Your task to perform on an android device: turn off picture-in-picture Image 0: 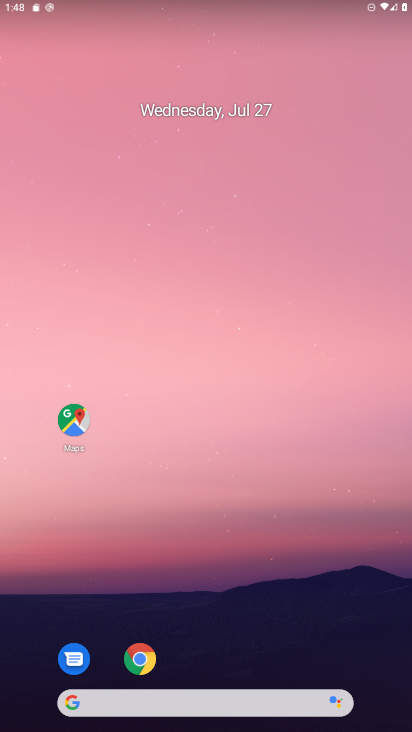
Step 0: drag from (256, 644) to (217, 93)
Your task to perform on an android device: turn off picture-in-picture Image 1: 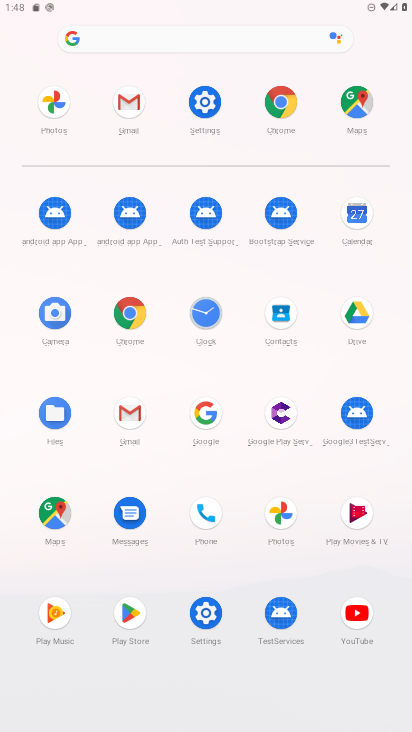
Step 1: click (275, 100)
Your task to perform on an android device: turn off picture-in-picture Image 2: 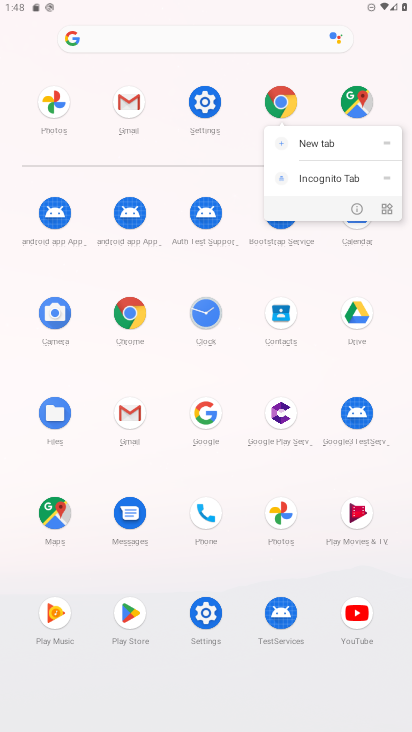
Step 2: click (352, 213)
Your task to perform on an android device: turn off picture-in-picture Image 3: 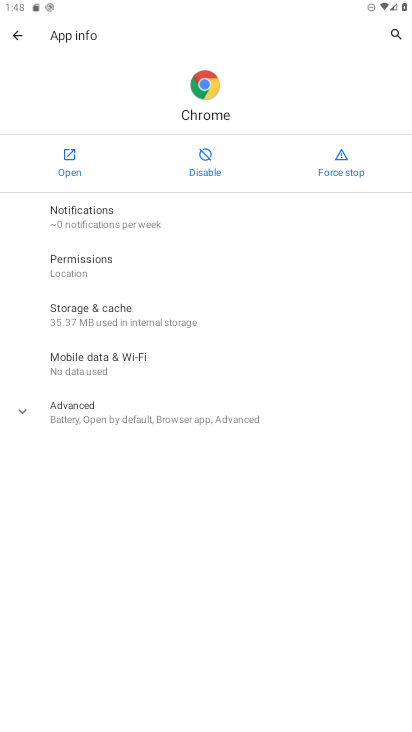
Step 3: click (122, 413)
Your task to perform on an android device: turn off picture-in-picture Image 4: 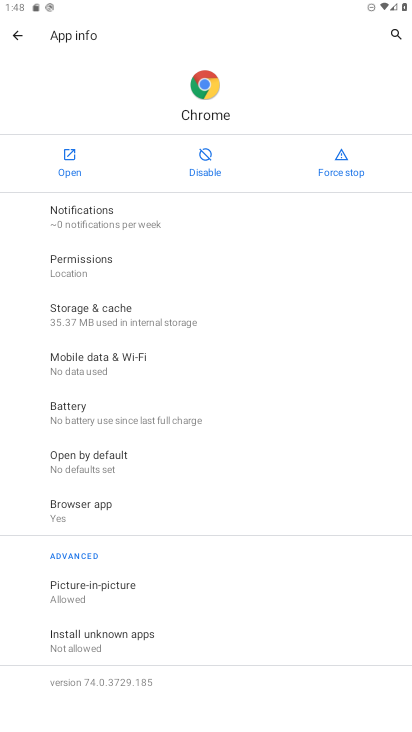
Step 4: click (117, 592)
Your task to perform on an android device: turn off picture-in-picture Image 5: 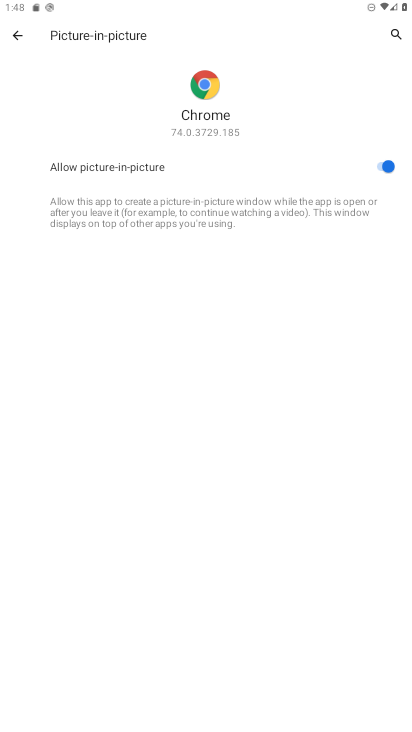
Step 5: click (384, 154)
Your task to perform on an android device: turn off picture-in-picture Image 6: 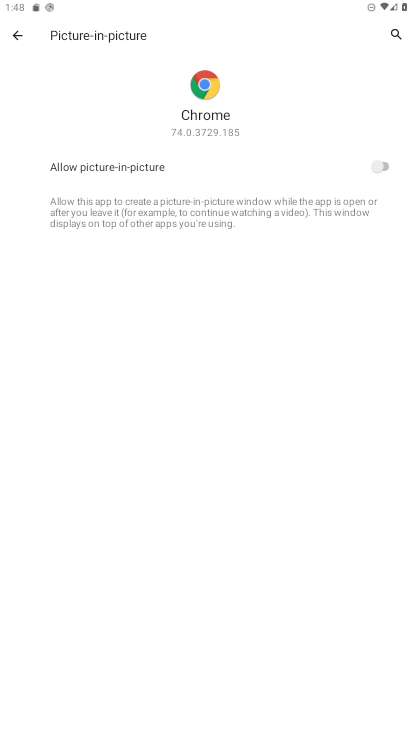
Step 6: task complete